Your task to perform on an android device: Do I have any events today? Image 0: 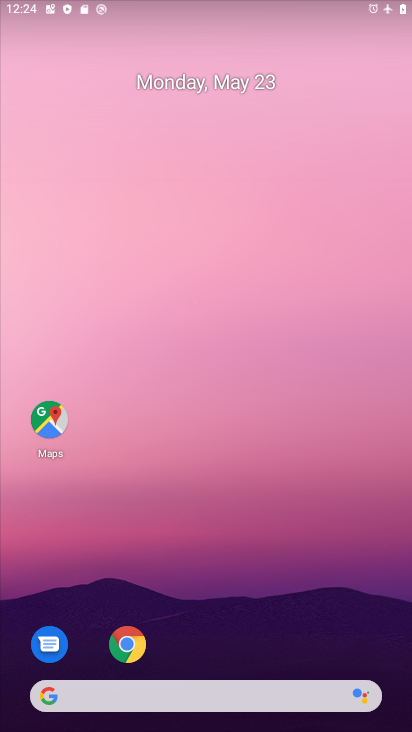
Step 0: drag from (311, 618) to (285, 101)
Your task to perform on an android device: Do I have any events today? Image 1: 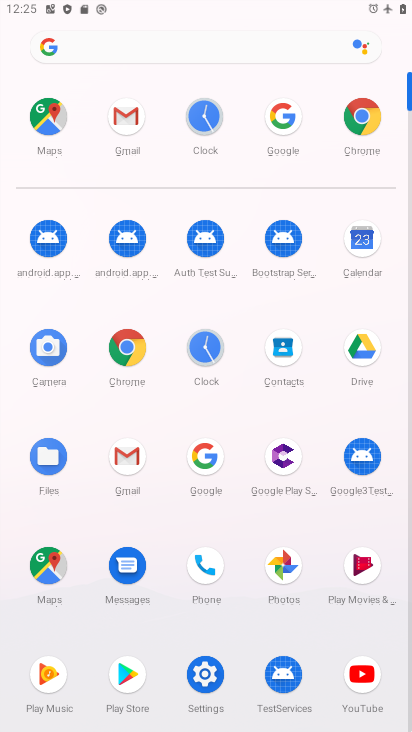
Step 1: click (357, 254)
Your task to perform on an android device: Do I have any events today? Image 2: 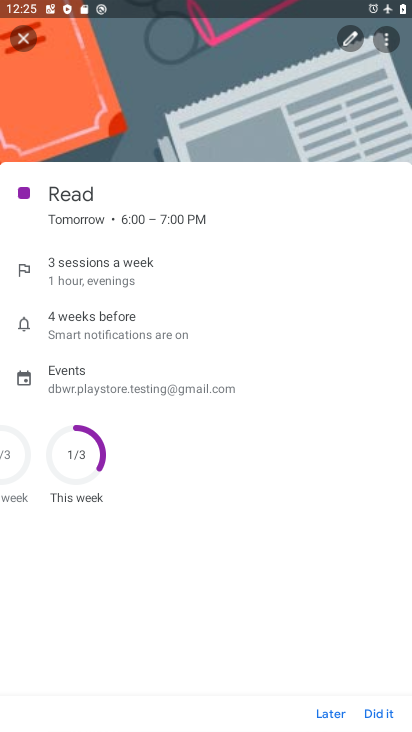
Step 2: task complete